Your task to perform on an android device: Open Yahoo.com Image 0: 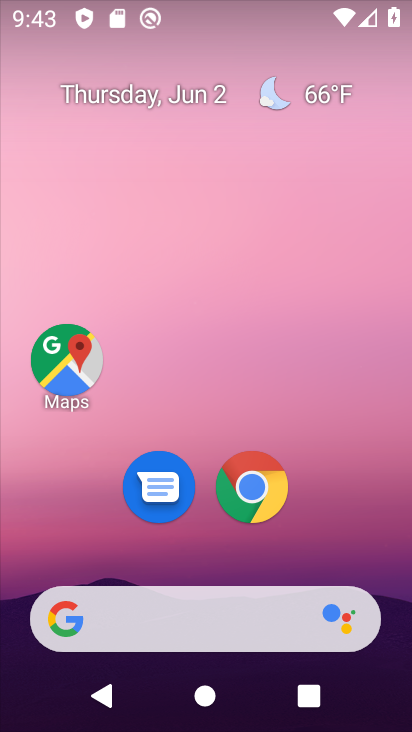
Step 0: click (253, 490)
Your task to perform on an android device: Open Yahoo.com Image 1: 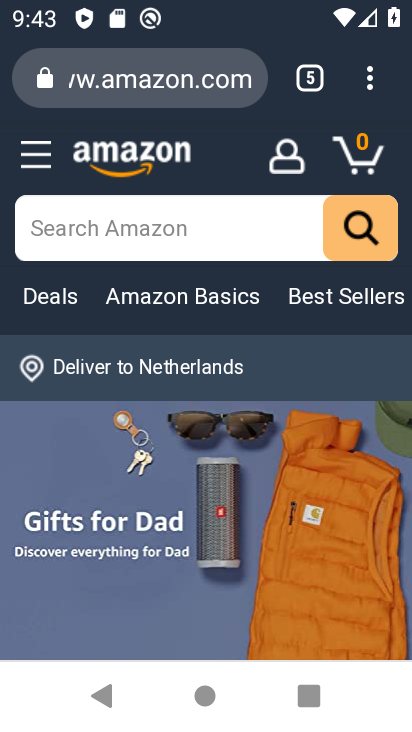
Step 1: click (372, 90)
Your task to perform on an android device: Open Yahoo.com Image 2: 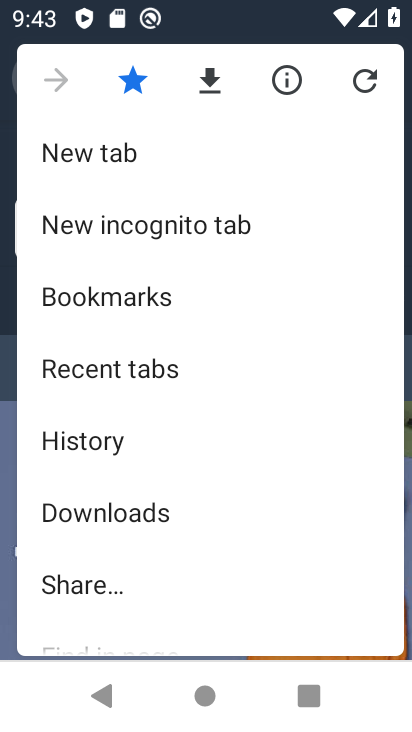
Step 2: click (63, 152)
Your task to perform on an android device: Open Yahoo.com Image 3: 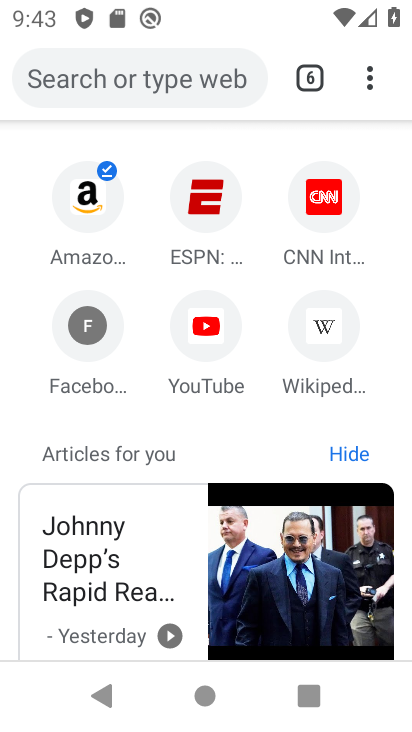
Step 3: click (167, 75)
Your task to perform on an android device: Open Yahoo.com Image 4: 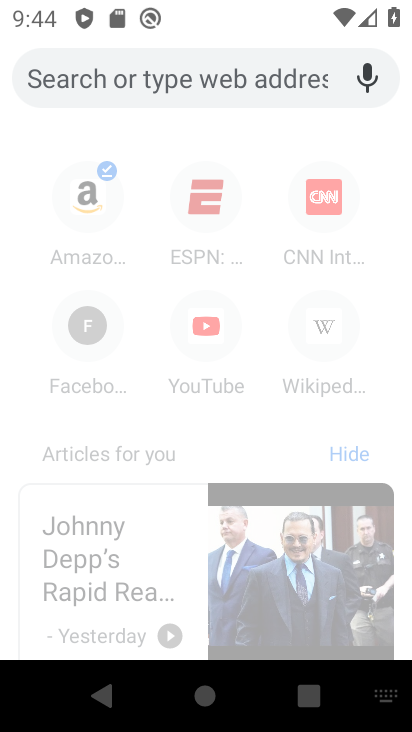
Step 4: type "Yahoo.com"
Your task to perform on an android device: Open Yahoo.com Image 5: 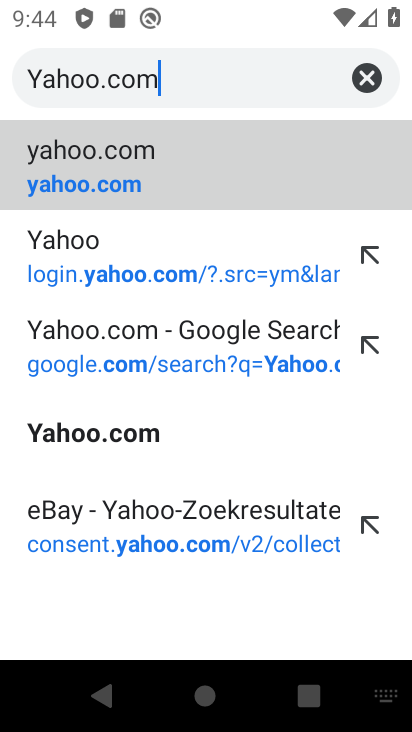
Step 5: click (123, 157)
Your task to perform on an android device: Open Yahoo.com Image 6: 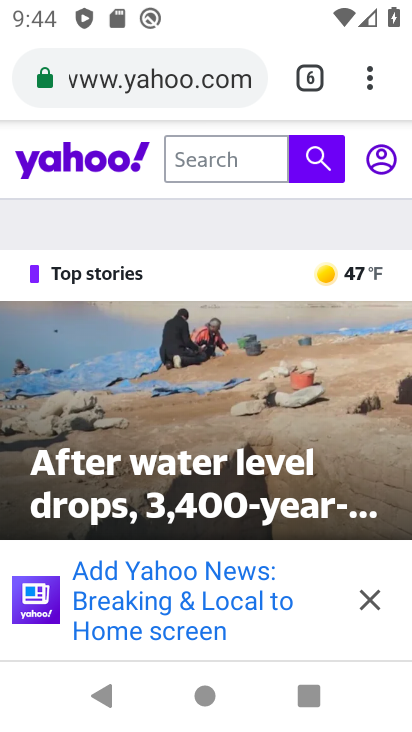
Step 6: task complete